Your task to perform on an android device: set the stopwatch Image 0: 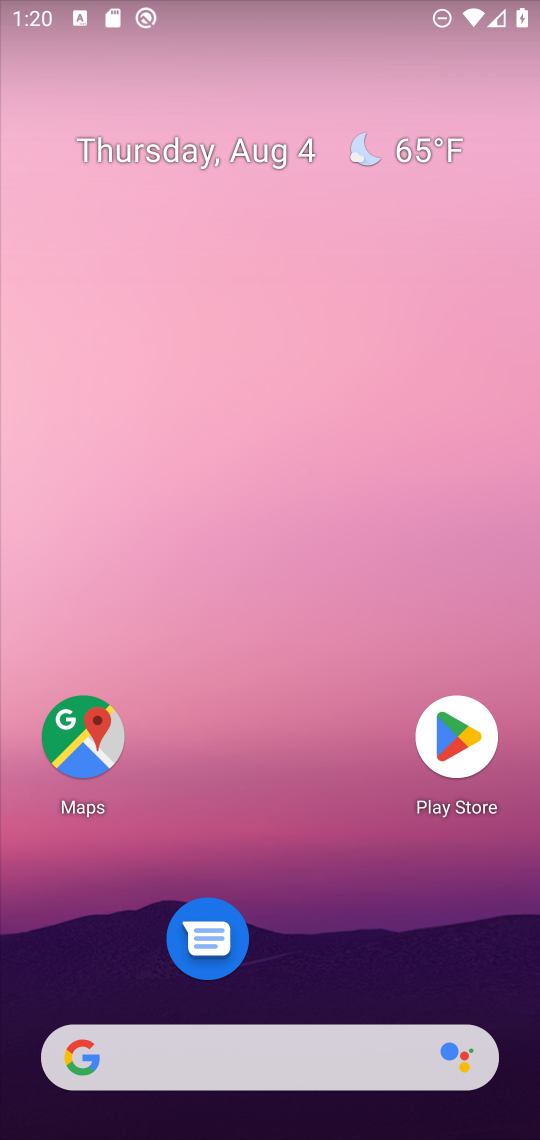
Step 0: drag from (168, 1109) to (361, 201)
Your task to perform on an android device: set the stopwatch Image 1: 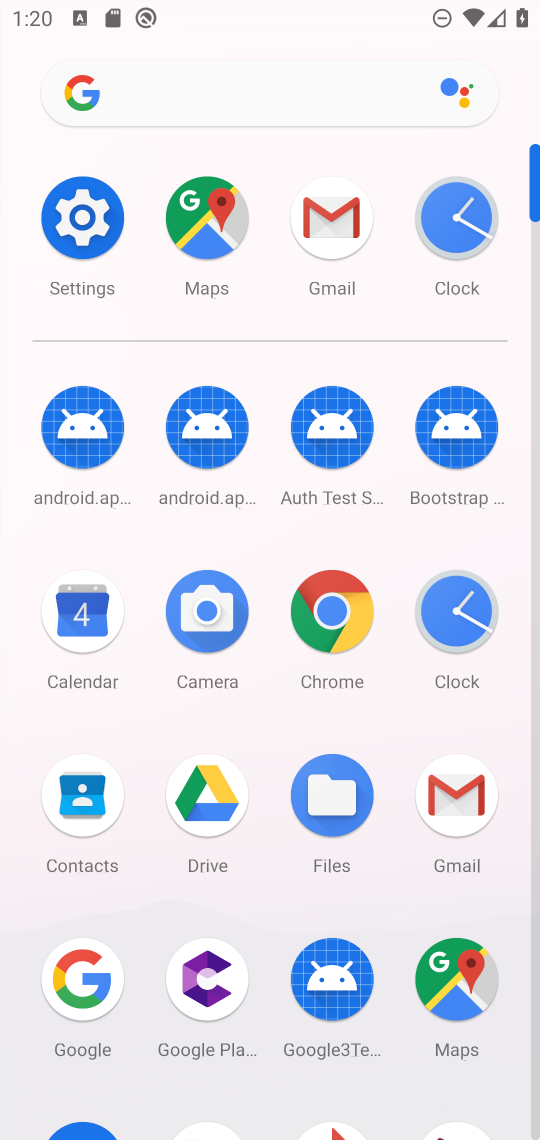
Step 1: click (453, 230)
Your task to perform on an android device: set the stopwatch Image 2: 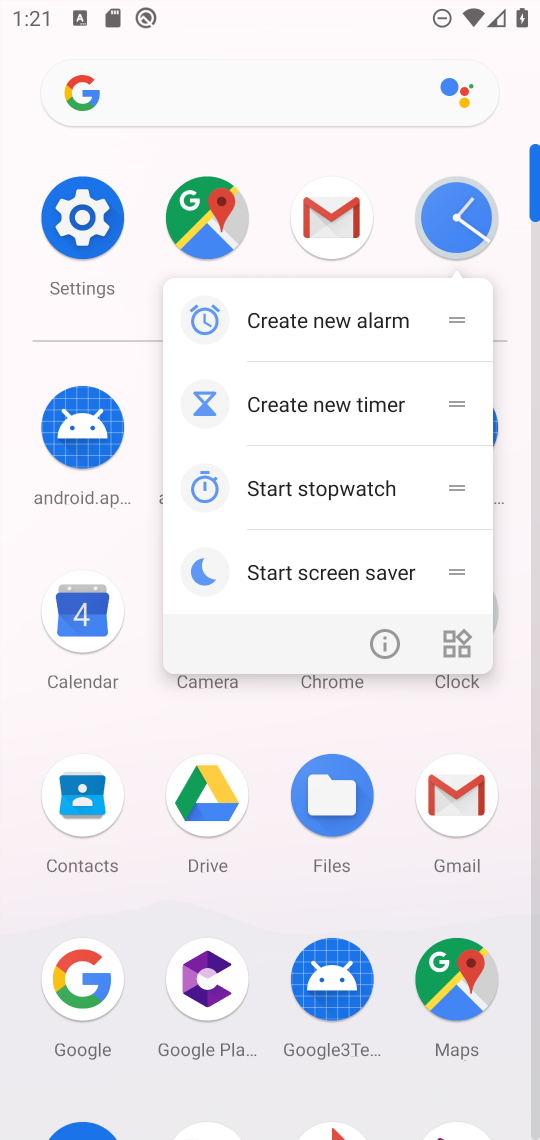
Step 2: click (465, 224)
Your task to perform on an android device: set the stopwatch Image 3: 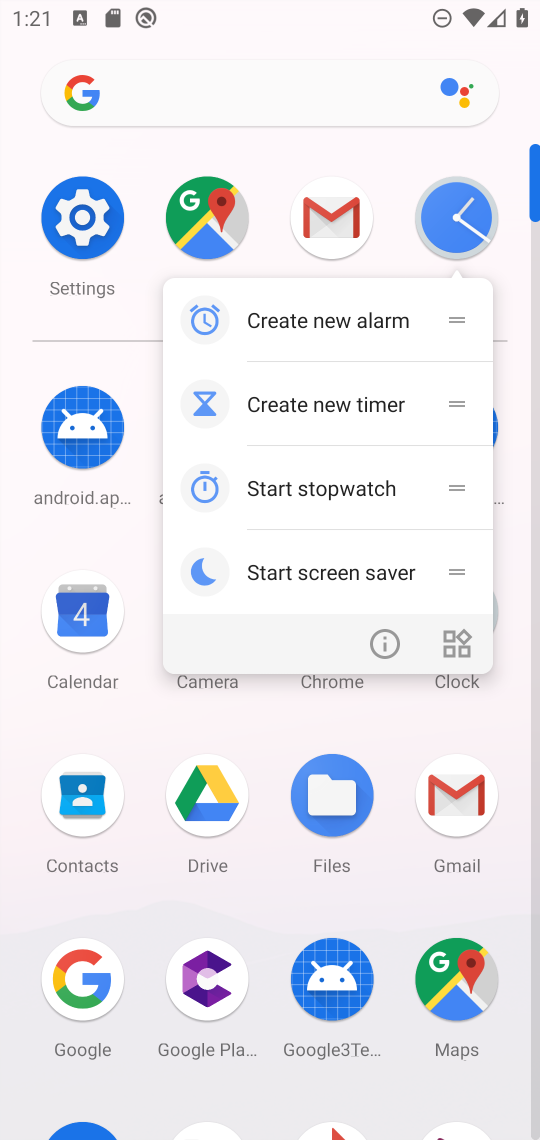
Step 3: click (465, 224)
Your task to perform on an android device: set the stopwatch Image 4: 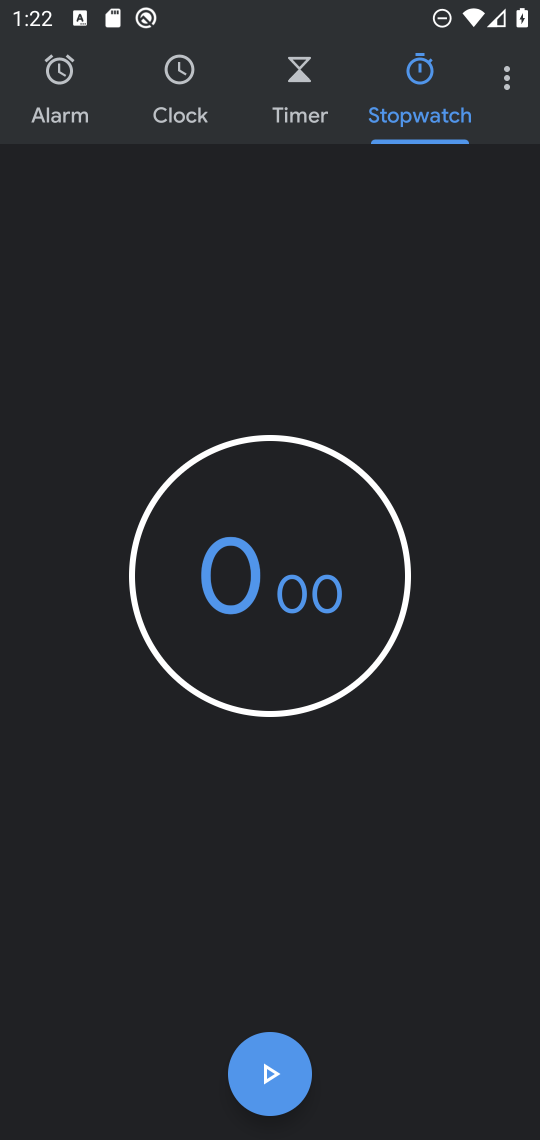
Step 4: task complete